Your task to perform on an android device: all mails in gmail Image 0: 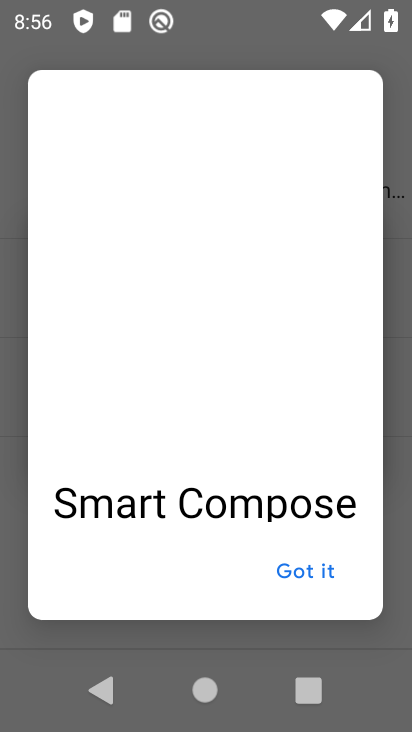
Step 0: click (302, 578)
Your task to perform on an android device: all mails in gmail Image 1: 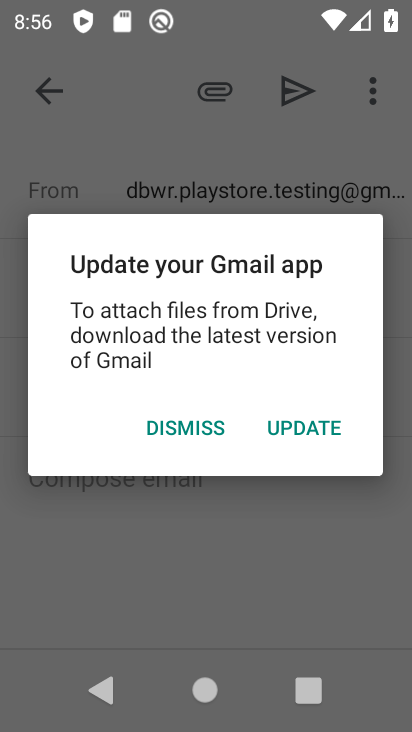
Step 1: press home button
Your task to perform on an android device: all mails in gmail Image 2: 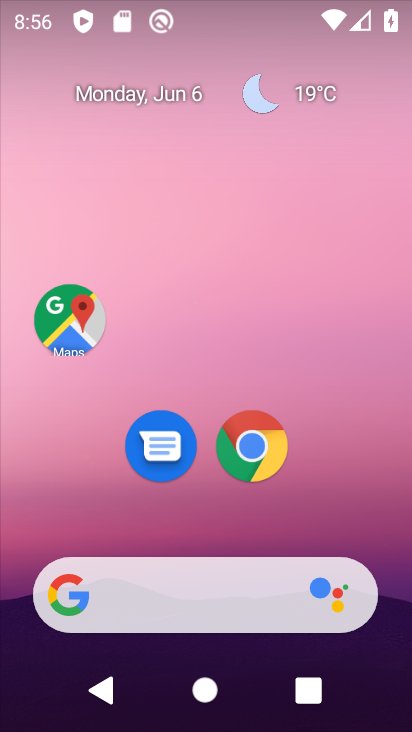
Step 2: drag from (212, 552) to (164, 150)
Your task to perform on an android device: all mails in gmail Image 3: 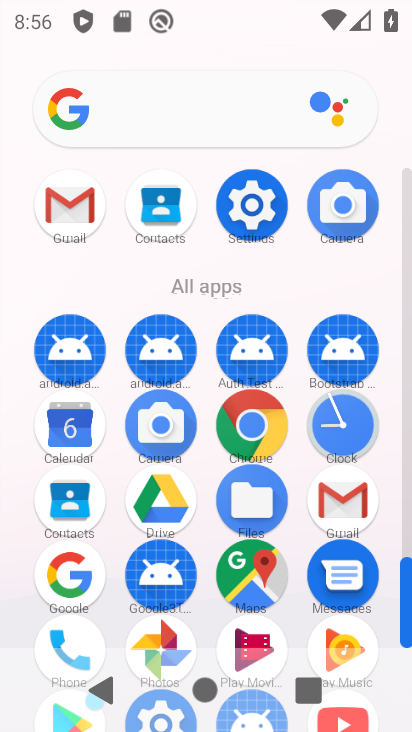
Step 3: click (338, 501)
Your task to perform on an android device: all mails in gmail Image 4: 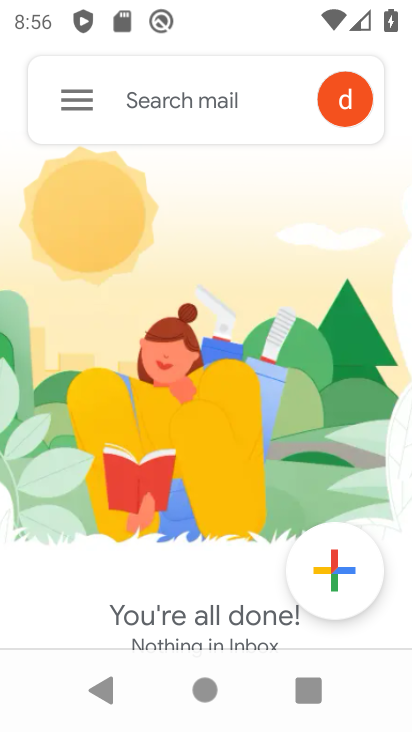
Step 4: click (77, 99)
Your task to perform on an android device: all mails in gmail Image 5: 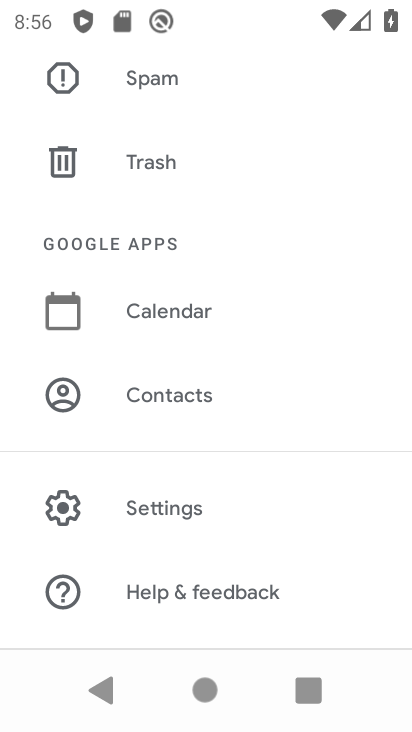
Step 5: drag from (226, 460) to (230, 554)
Your task to perform on an android device: all mails in gmail Image 6: 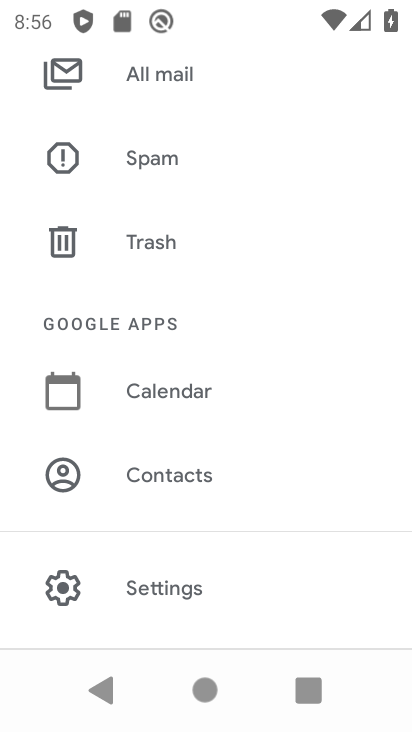
Step 6: click (186, 71)
Your task to perform on an android device: all mails in gmail Image 7: 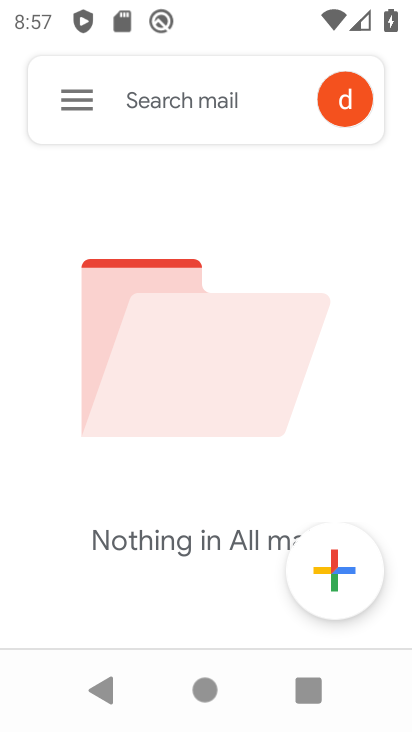
Step 7: task complete